Your task to perform on an android device: Check the news Image 0: 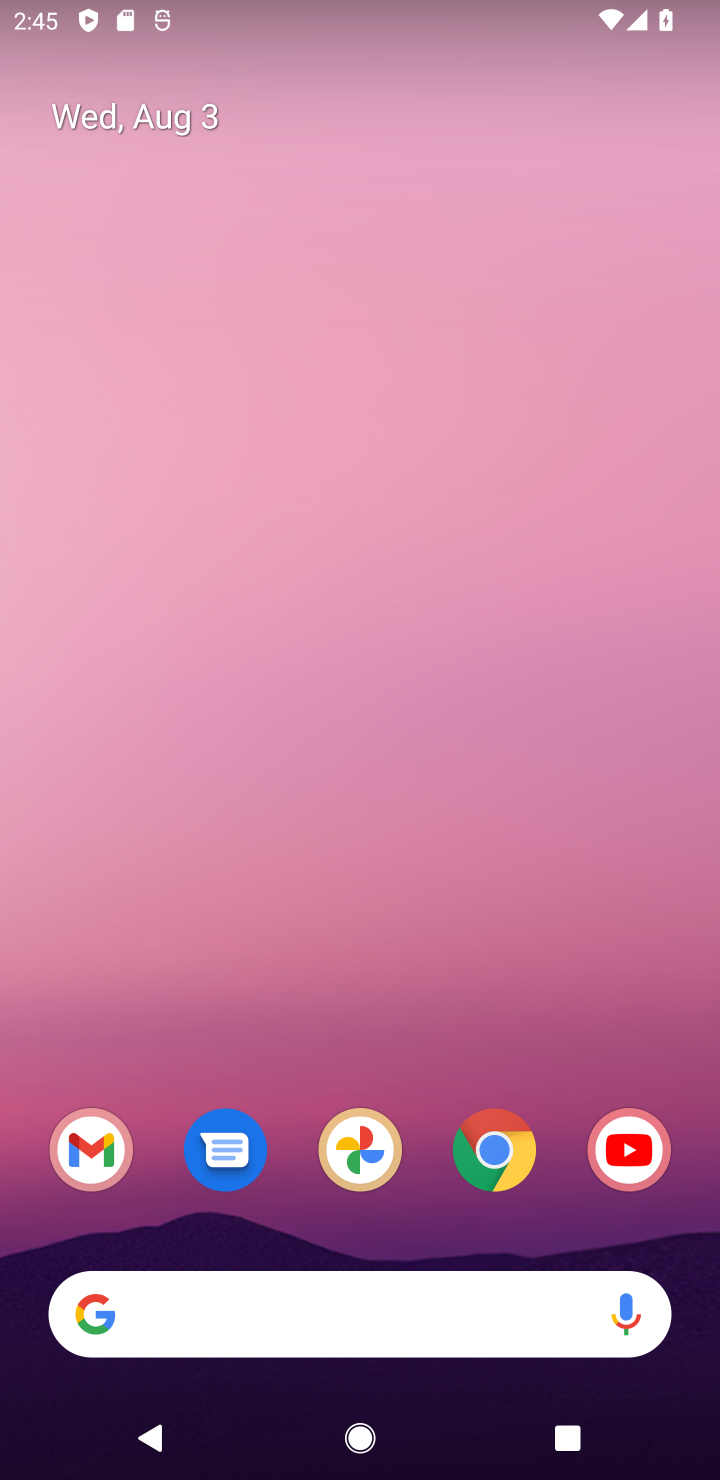
Step 0: drag from (337, 1263) to (277, 205)
Your task to perform on an android device: Check the news Image 1: 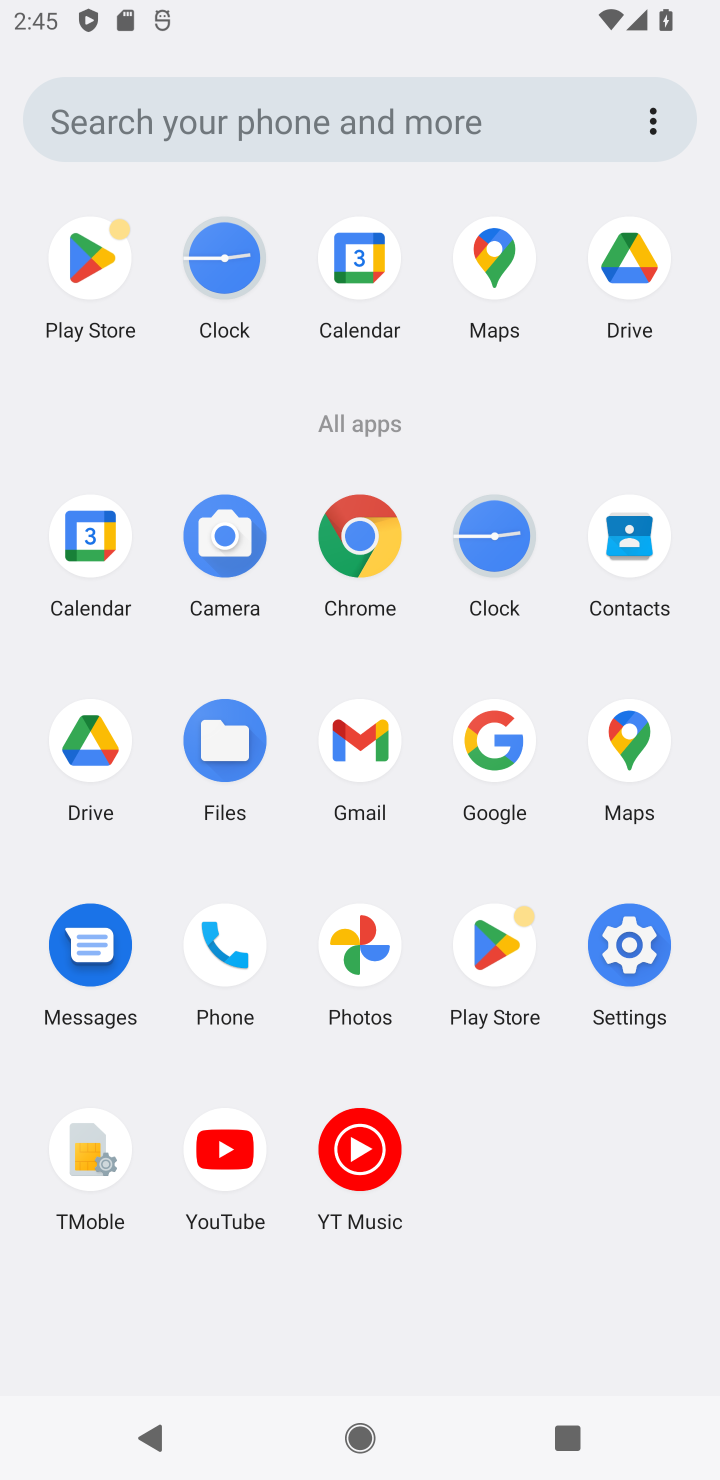
Step 1: click (357, 586)
Your task to perform on an android device: Check the news Image 2: 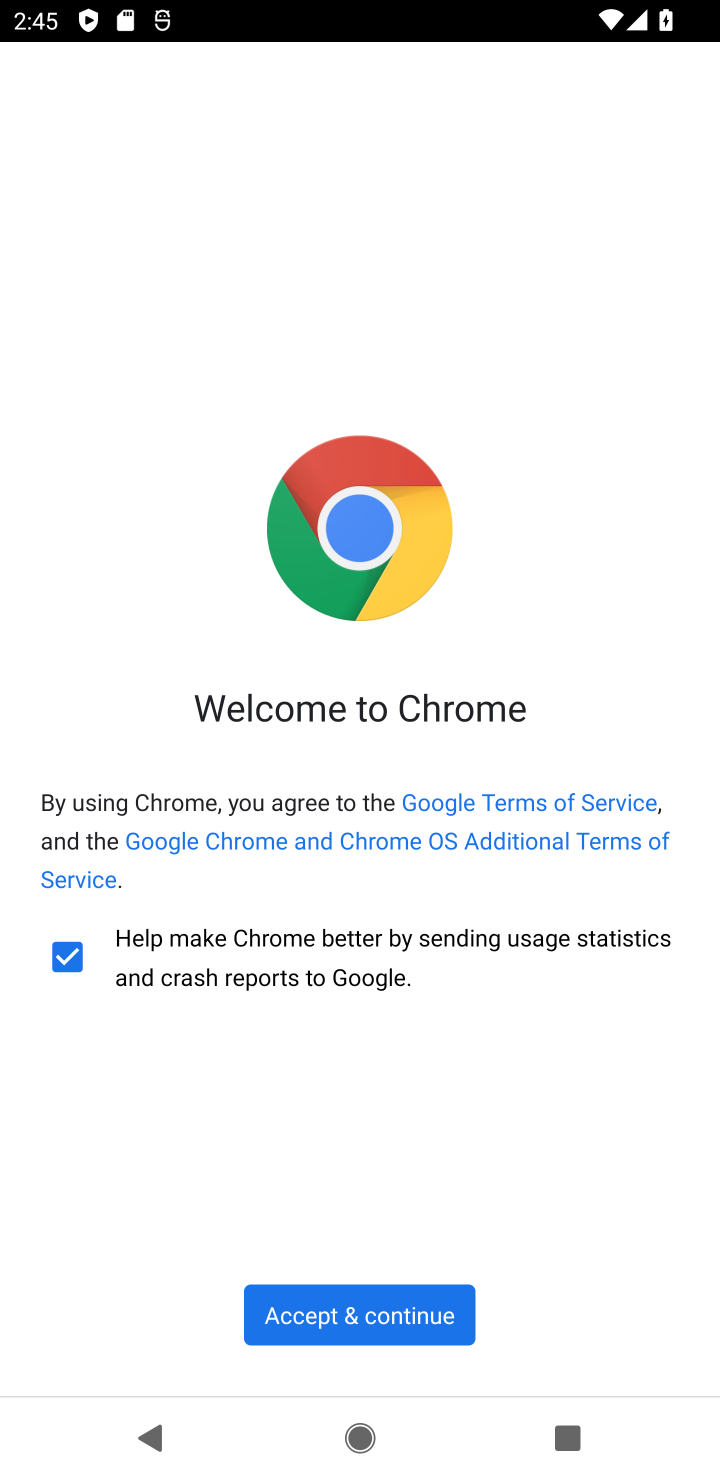
Step 2: click (334, 1313)
Your task to perform on an android device: Check the news Image 3: 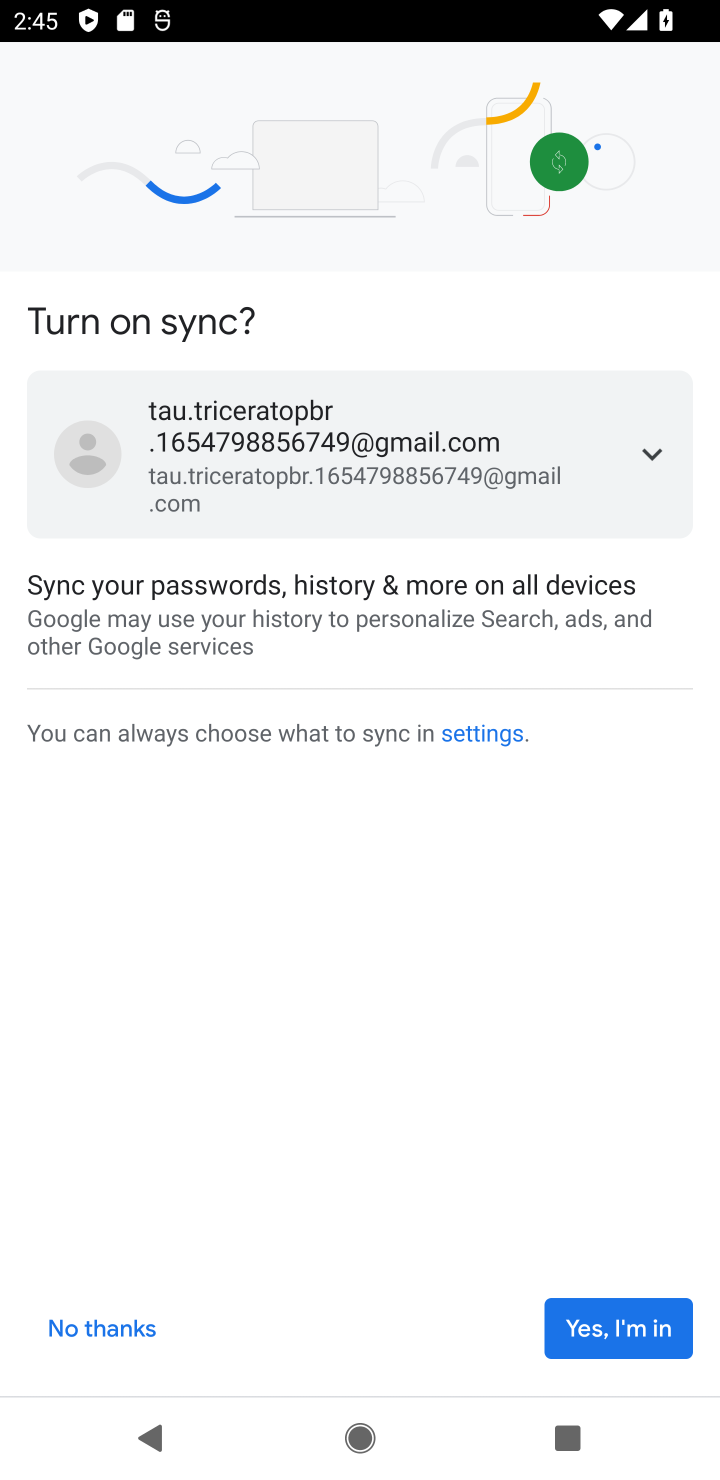
Step 3: click (623, 1344)
Your task to perform on an android device: Check the news Image 4: 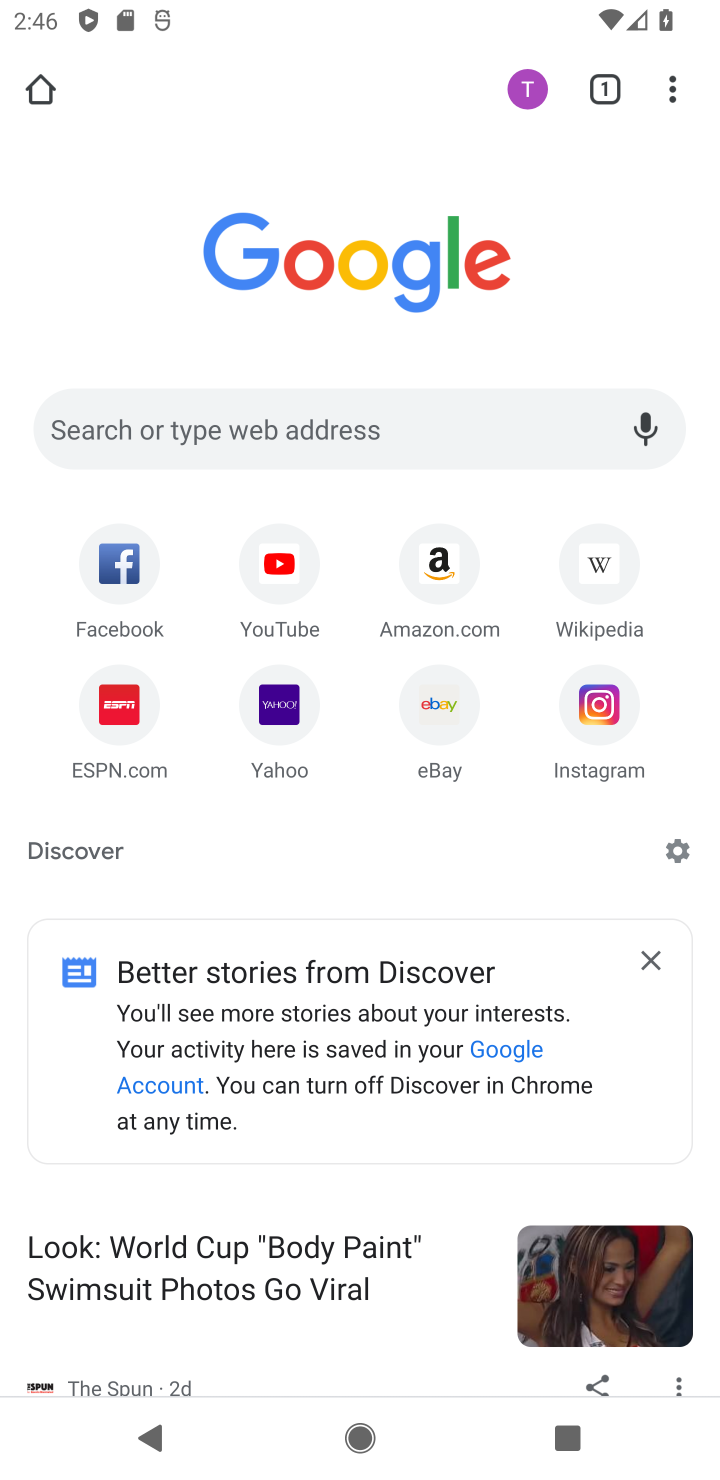
Step 4: click (238, 421)
Your task to perform on an android device: Check the news Image 5: 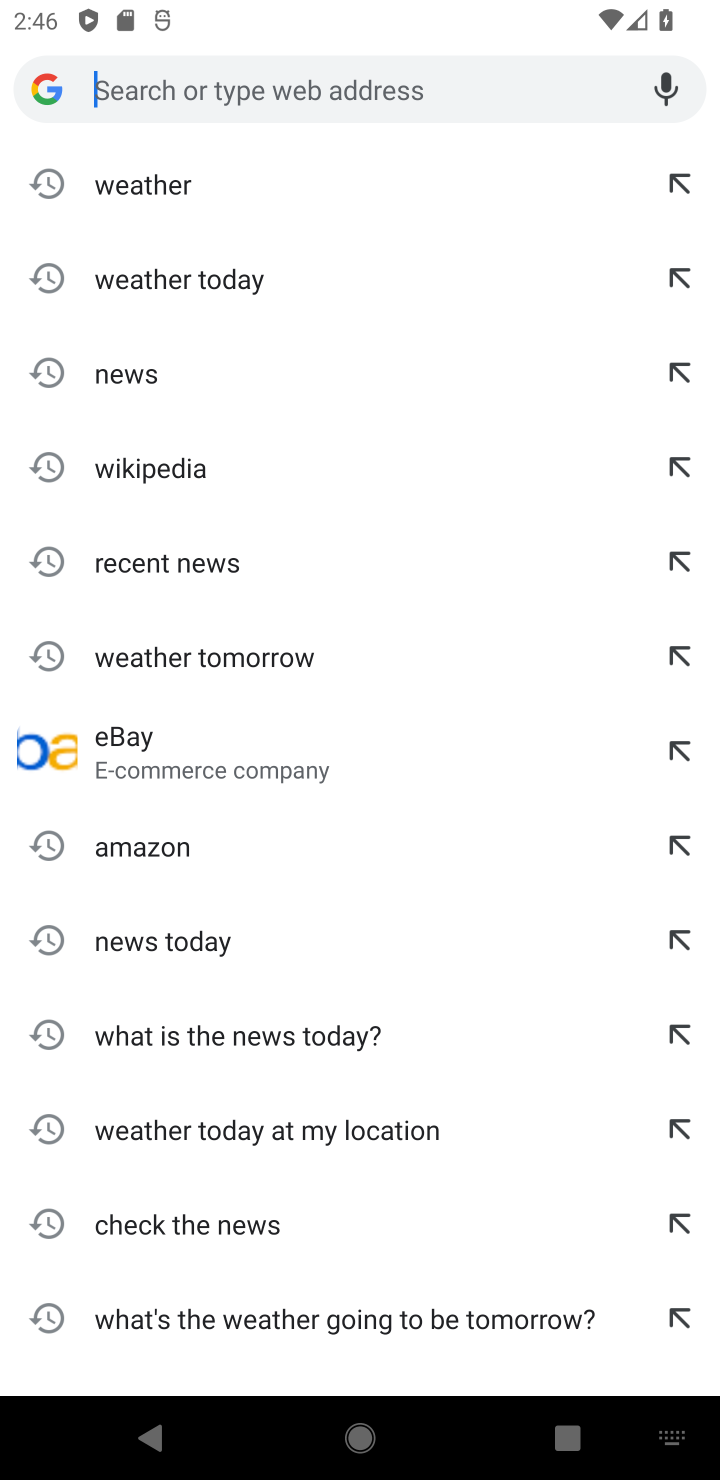
Step 5: type "news"
Your task to perform on an android device: Check the news Image 6: 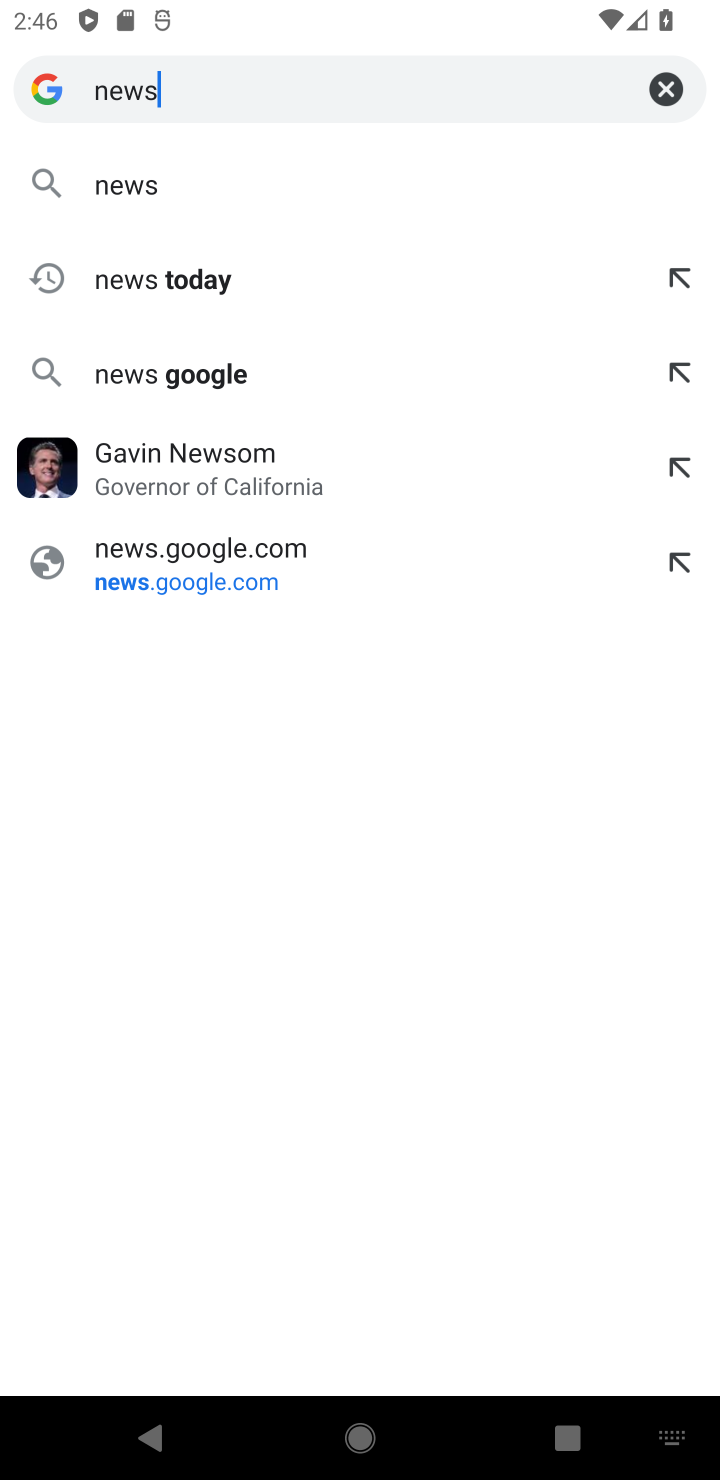
Step 6: click (130, 188)
Your task to perform on an android device: Check the news Image 7: 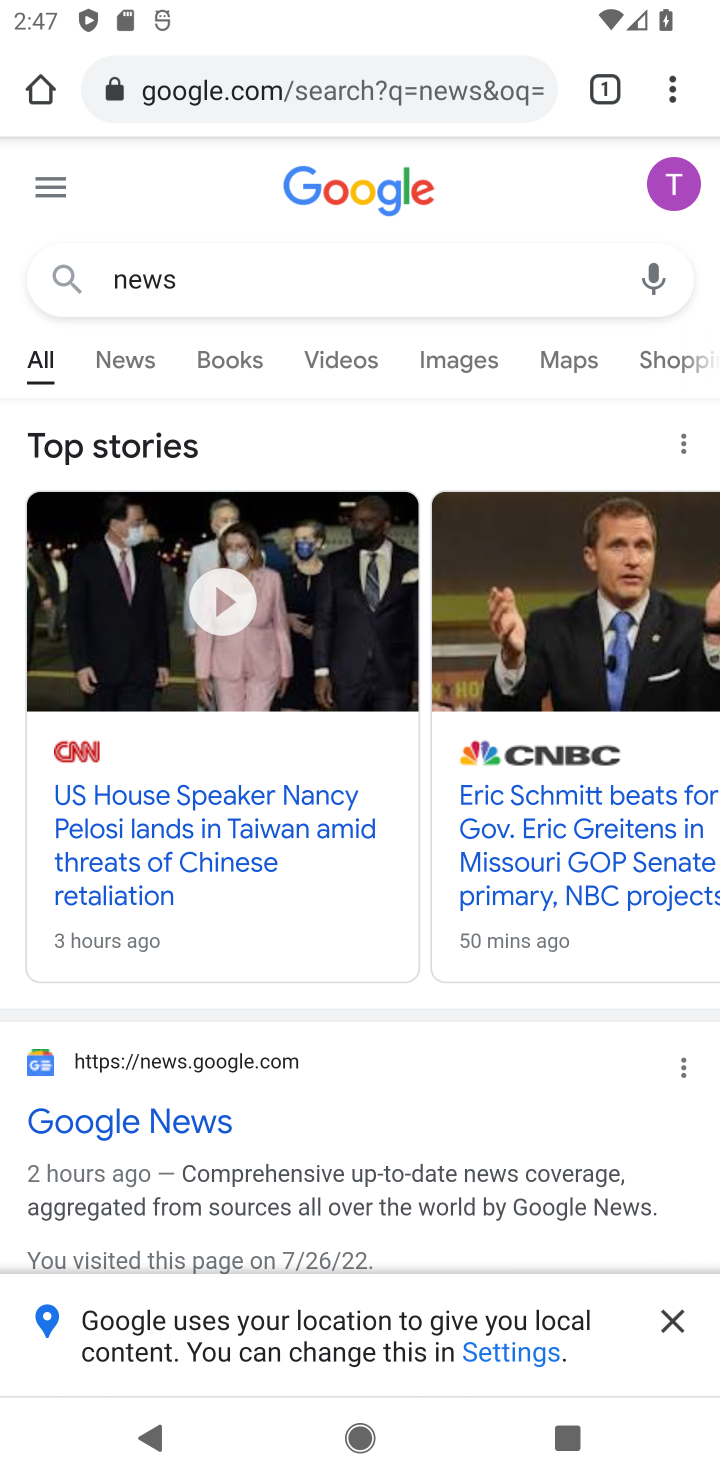
Step 7: task complete